Your task to perform on an android device: add a contact in the contacts app Image 0: 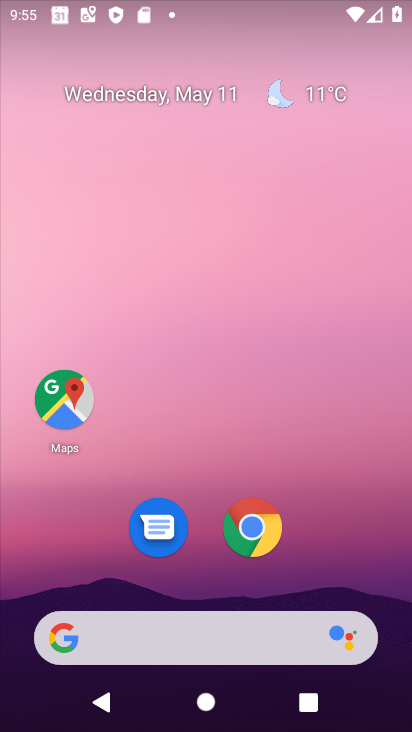
Step 0: drag from (335, 529) to (282, 75)
Your task to perform on an android device: add a contact in the contacts app Image 1: 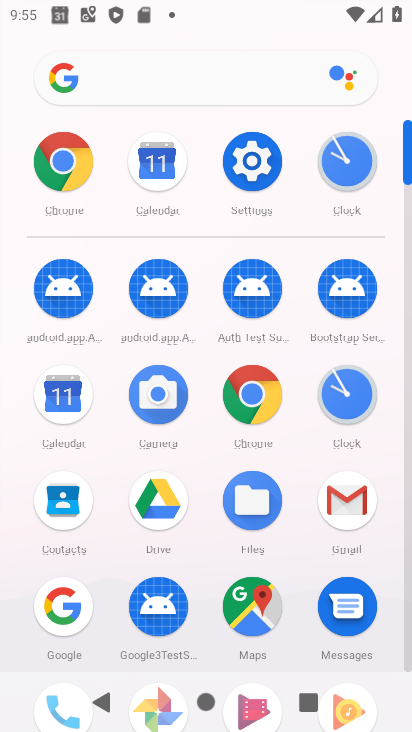
Step 1: click (50, 511)
Your task to perform on an android device: add a contact in the contacts app Image 2: 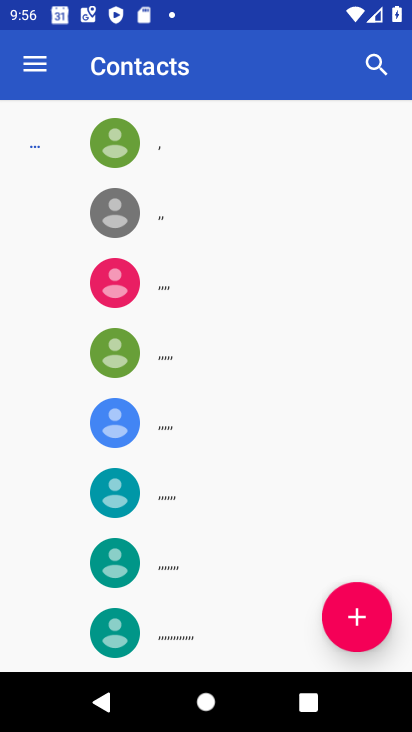
Step 2: click (363, 617)
Your task to perform on an android device: add a contact in the contacts app Image 3: 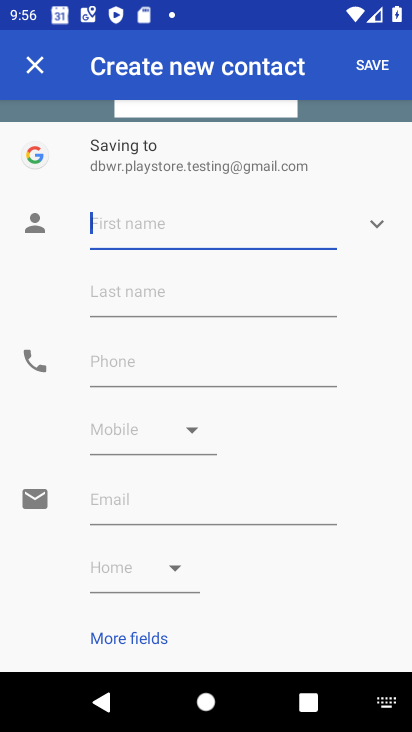
Step 3: type "alwa"
Your task to perform on an android device: add a contact in the contacts app Image 4: 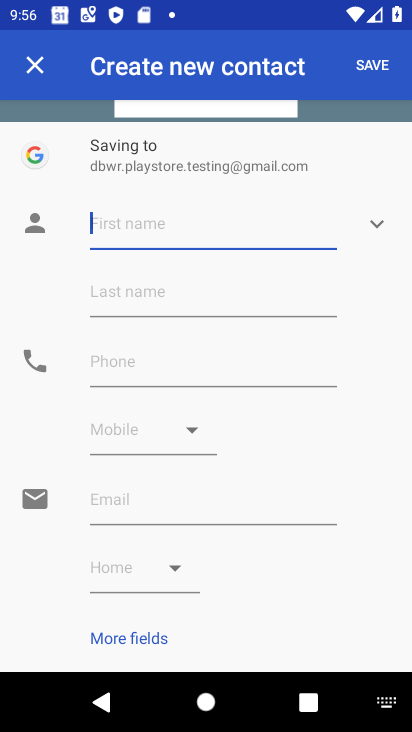
Step 4: click (149, 391)
Your task to perform on an android device: add a contact in the contacts app Image 5: 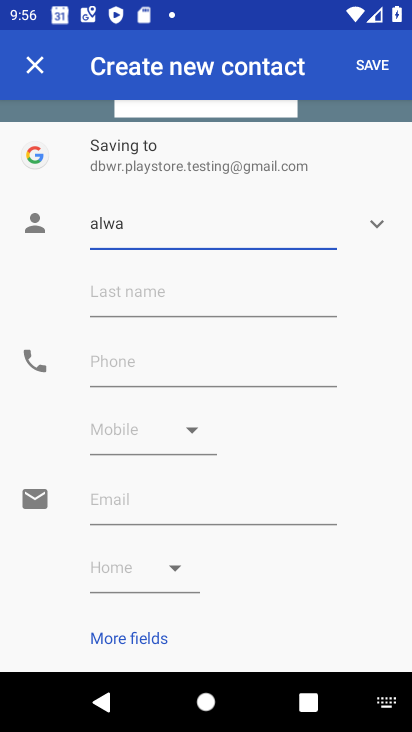
Step 5: click (148, 353)
Your task to perform on an android device: add a contact in the contacts app Image 6: 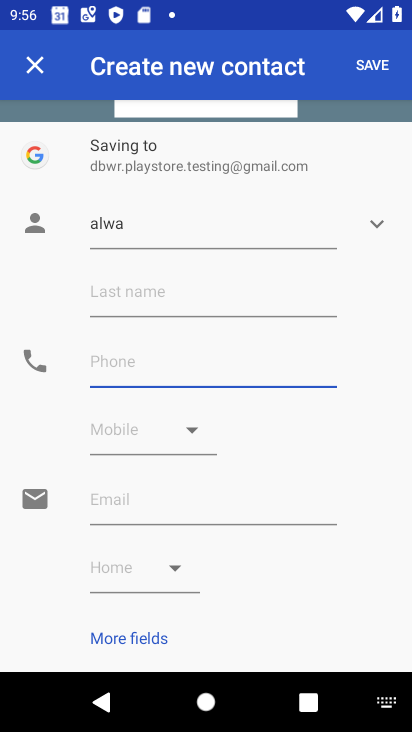
Step 6: type "673737373"
Your task to perform on an android device: add a contact in the contacts app Image 7: 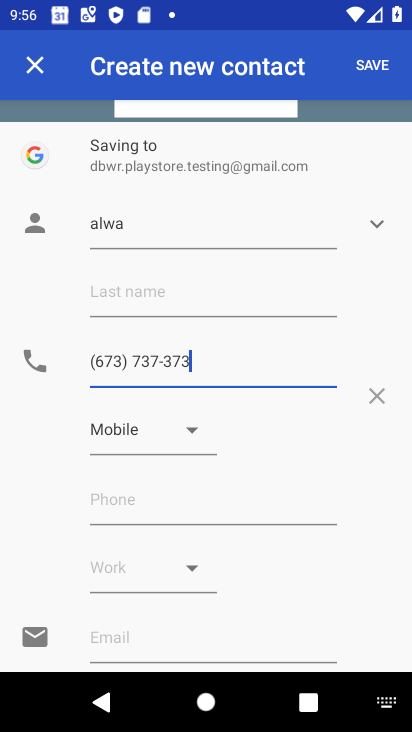
Step 7: click (378, 71)
Your task to perform on an android device: add a contact in the contacts app Image 8: 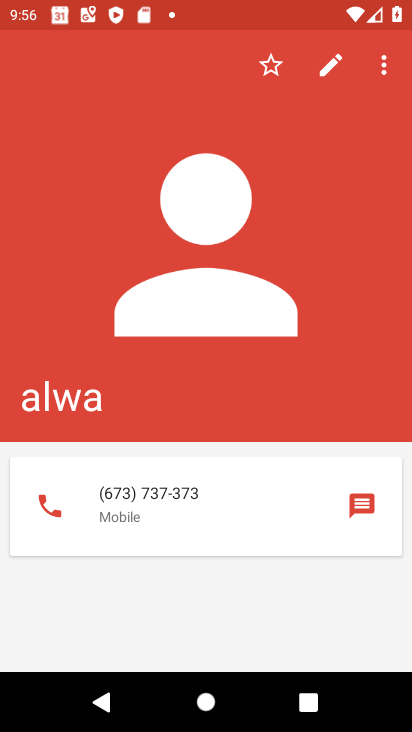
Step 8: task complete